Your task to perform on an android device: Clear all items from cart on costco. Add "rayovac triple a" to the cart on costco Image 0: 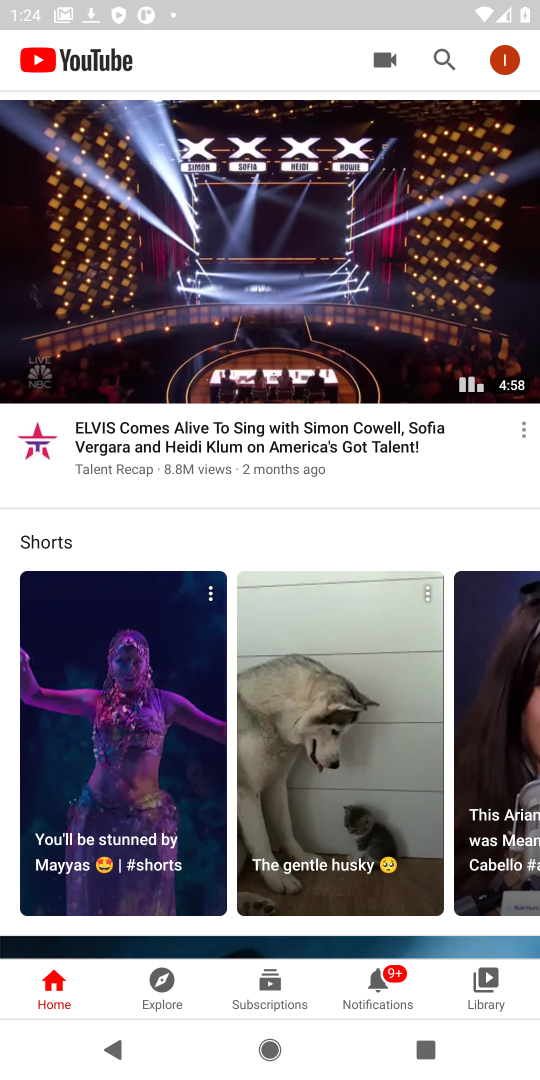
Step 0: press home button
Your task to perform on an android device: Clear all items from cart on costco. Add "rayovac triple a" to the cart on costco Image 1: 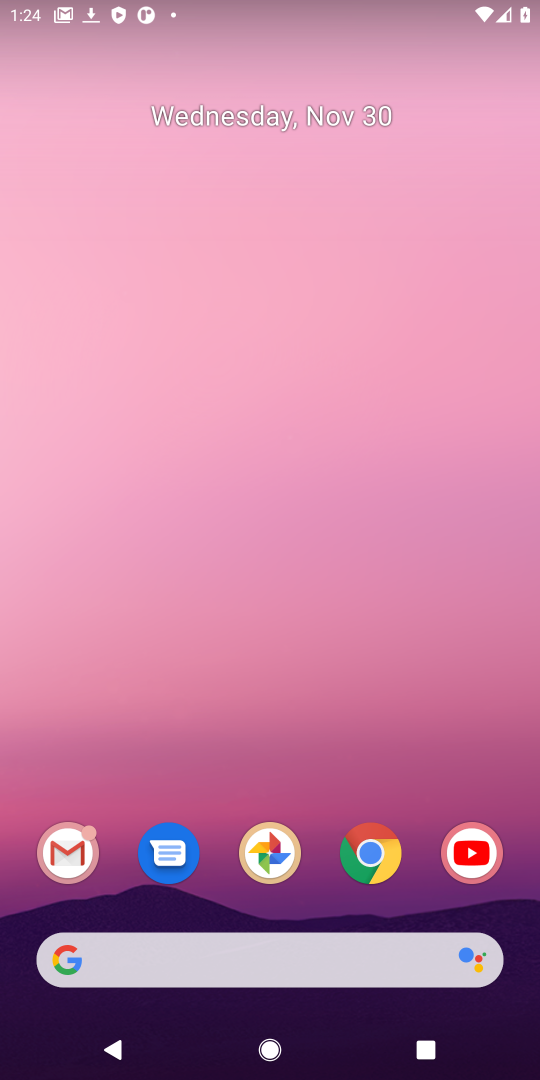
Step 1: click (383, 857)
Your task to perform on an android device: Clear all items from cart on costco. Add "rayovac triple a" to the cart on costco Image 2: 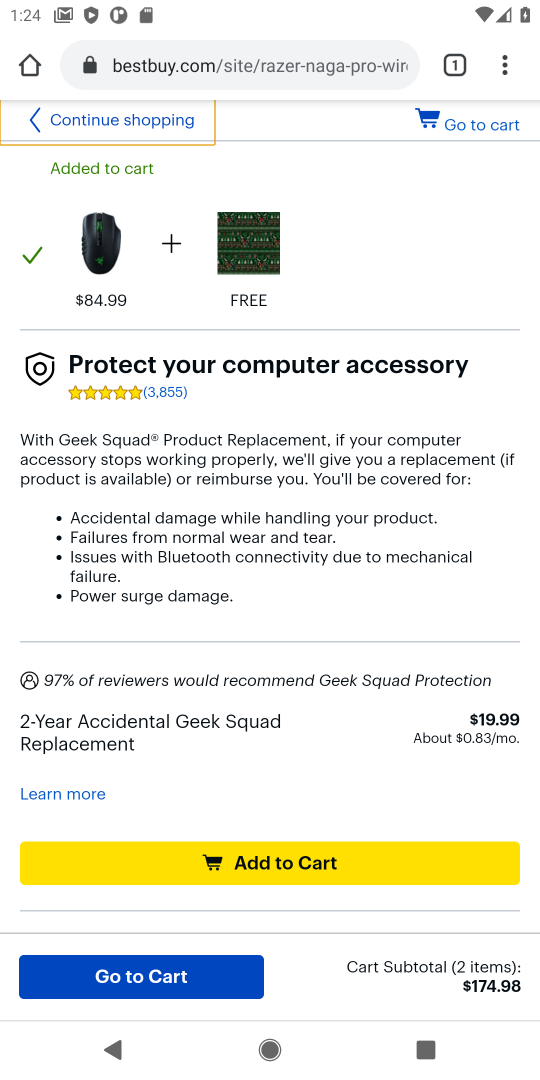
Step 2: click (202, 62)
Your task to perform on an android device: Clear all items from cart on costco. Add "rayovac triple a" to the cart on costco Image 3: 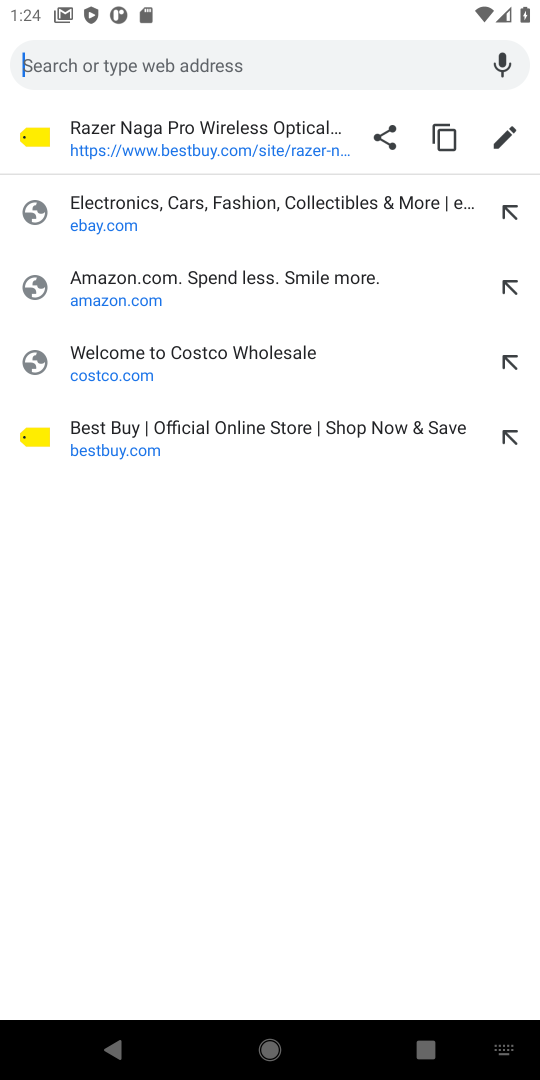
Step 3: click (104, 360)
Your task to perform on an android device: Clear all items from cart on costco. Add "rayovac triple a" to the cart on costco Image 4: 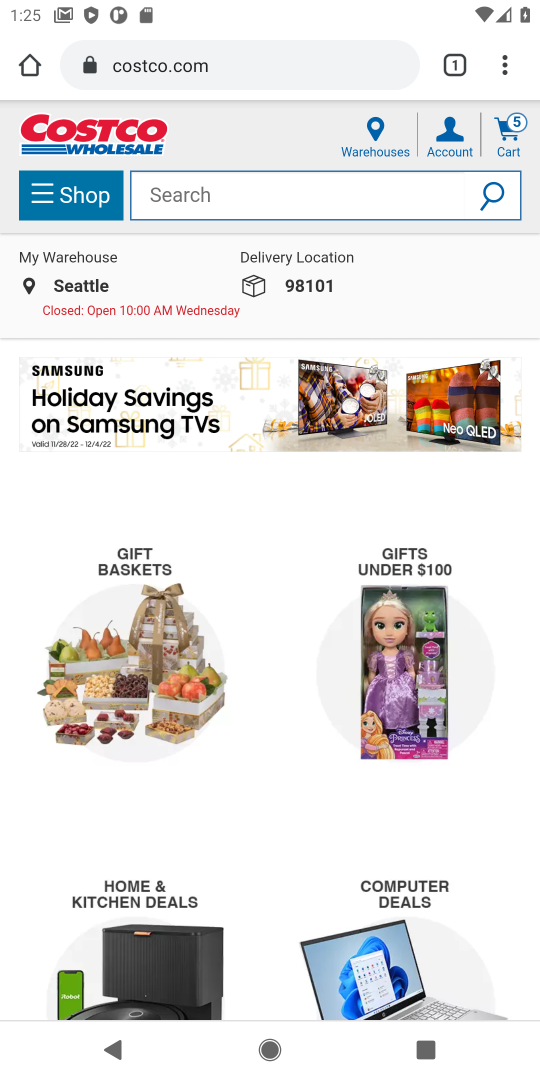
Step 4: click (511, 129)
Your task to perform on an android device: Clear all items from cart on costco. Add "rayovac triple a" to the cart on costco Image 5: 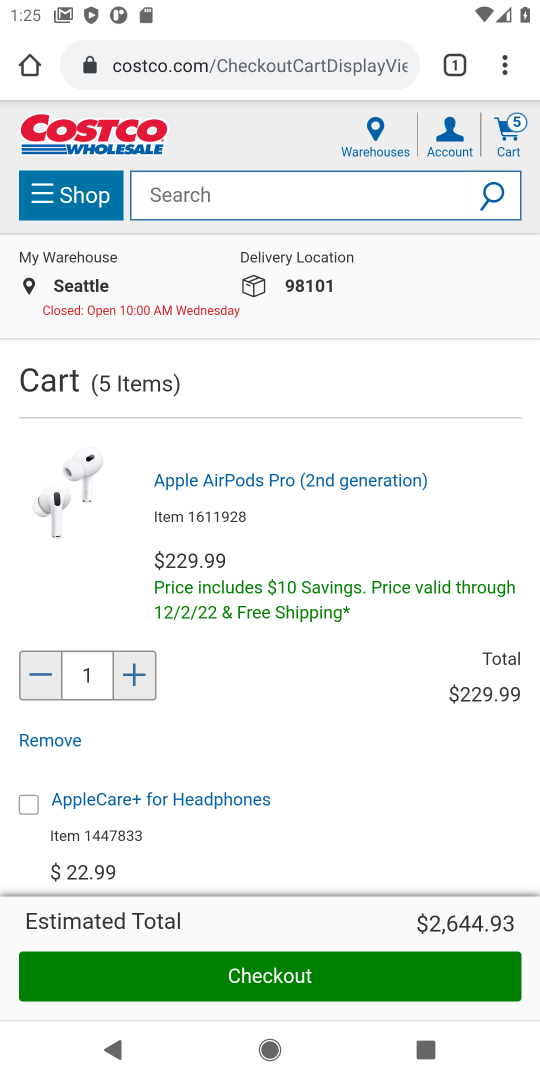
Step 5: drag from (299, 786) to (317, 391)
Your task to perform on an android device: Clear all items from cart on costco. Add "rayovac triple a" to the cart on costco Image 6: 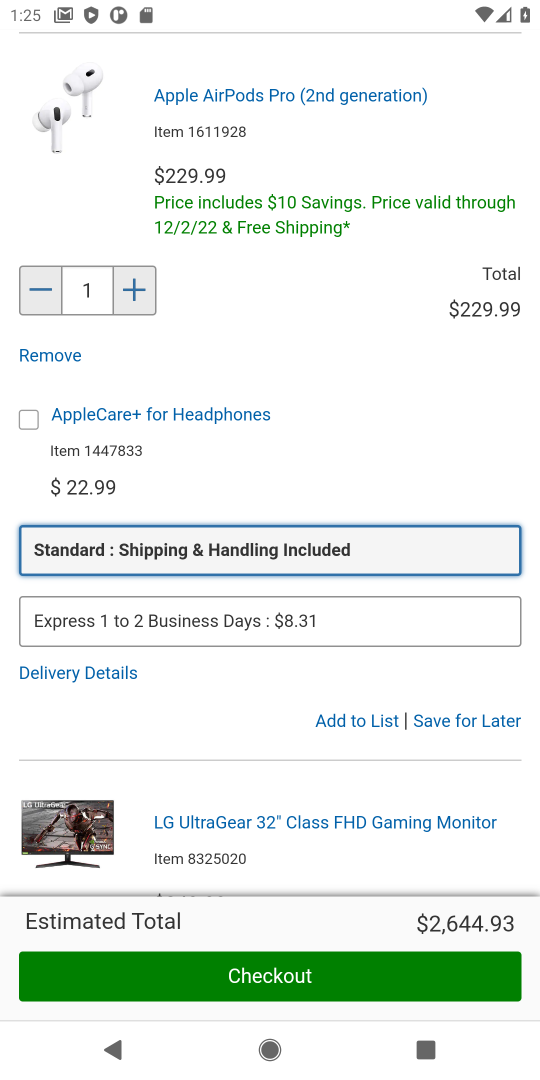
Step 6: click (461, 721)
Your task to perform on an android device: Clear all items from cart on costco. Add "rayovac triple a" to the cart on costco Image 7: 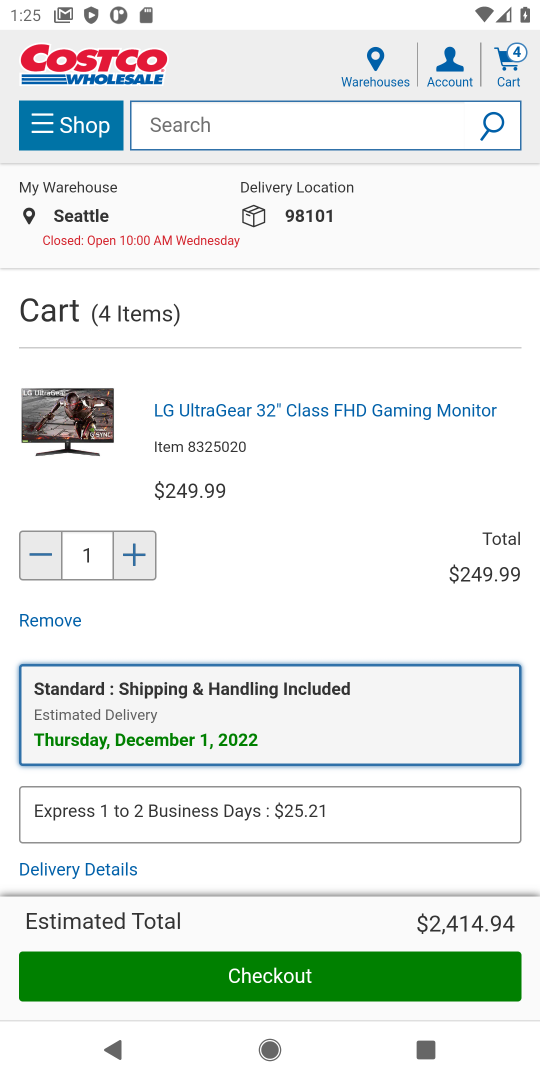
Step 7: drag from (372, 788) to (342, 423)
Your task to perform on an android device: Clear all items from cart on costco. Add "rayovac triple a" to the cart on costco Image 8: 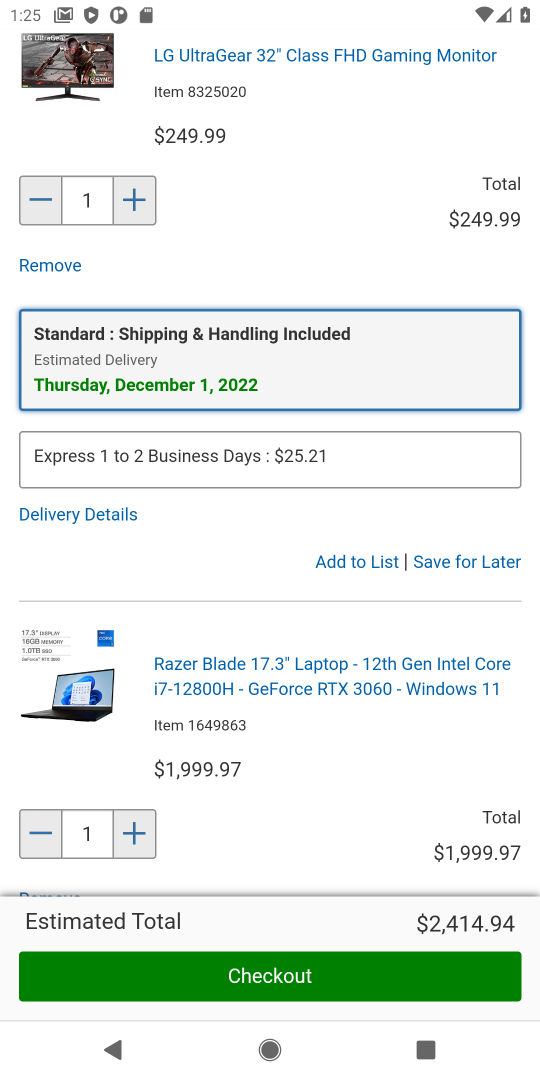
Step 8: click (447, 570)
Your task to perform on an android device: Clear all items from cart on costco. Add "rayovac triple a" to the cart on costco Image 9: 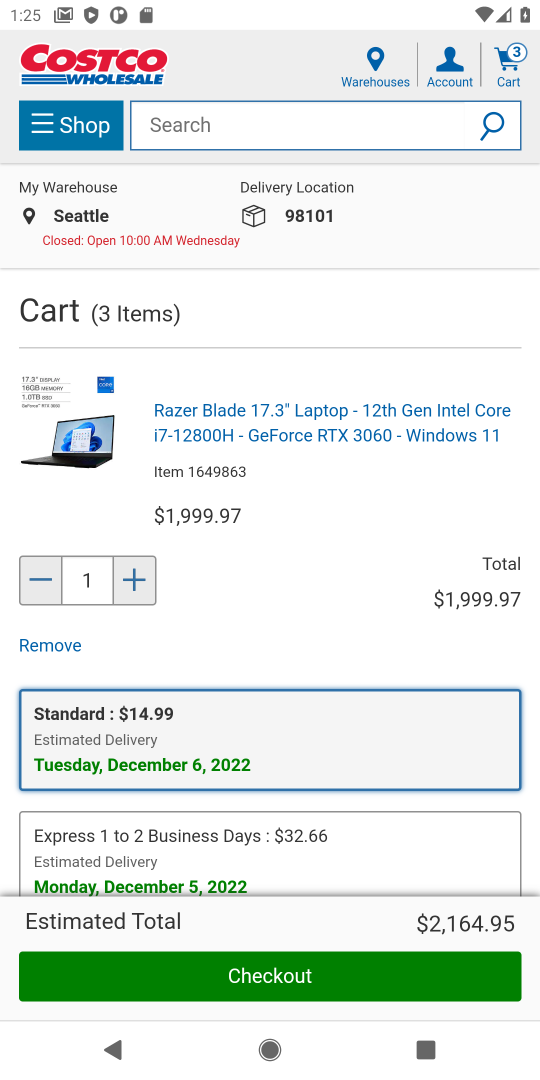
Step 9: drag from (246, 766) to (272, 416)
Your task to perform on an android device: Clear all items from cart on costco. Add "rayovac triple a" to the cart on costco Image 10: 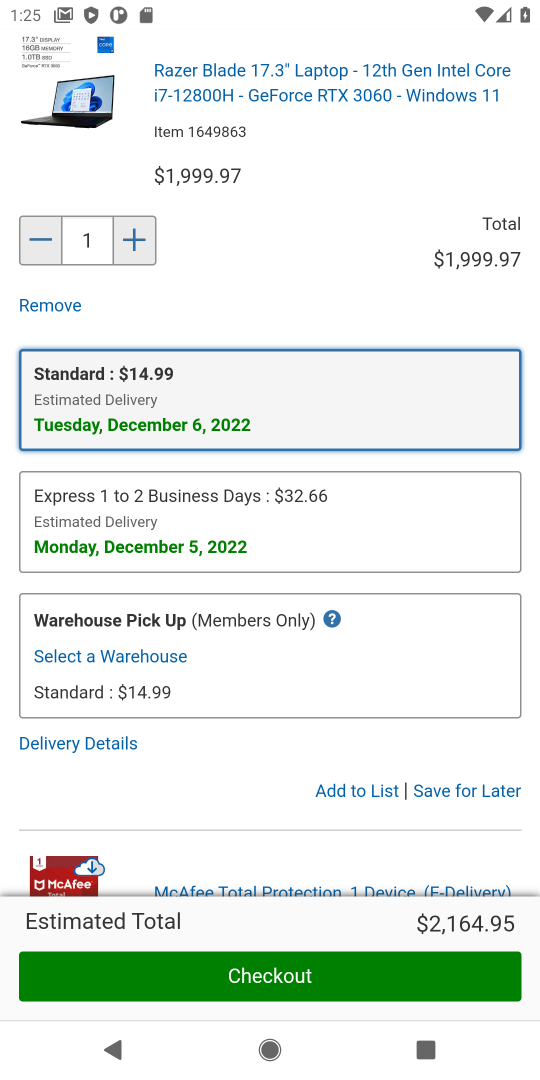
Step 10: click (450, 784)
Your task to perform on an android device: Clear all items from cart on costco. Add "rayovac triple a" to the cart on costco Image 11: 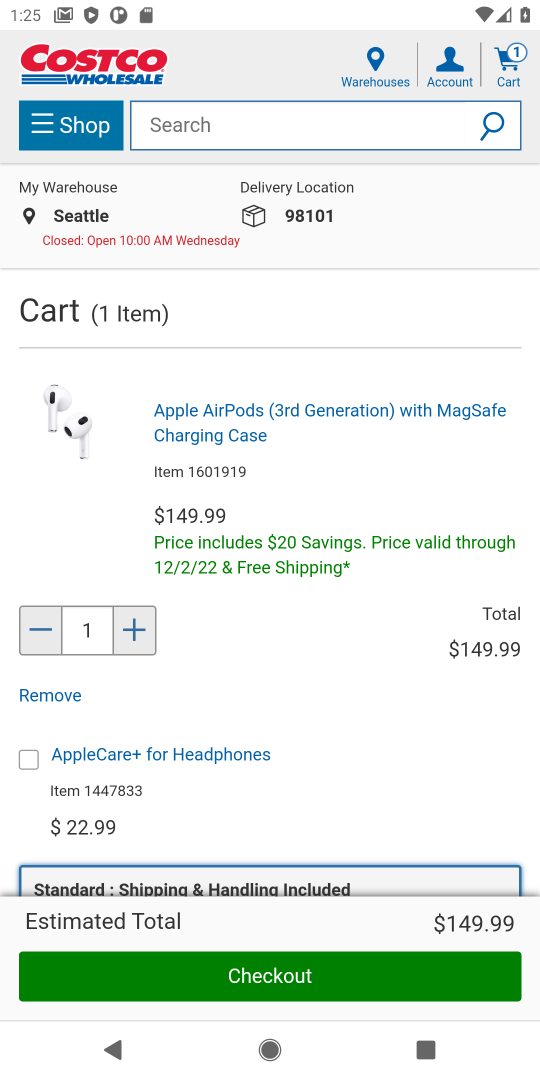
Step 11: drag from (340, 784) to (305, 397)
Your task to perform on an android device: Clear all items from cart on costco. Add "rayovac triple a" to the cart on costco Image 12: 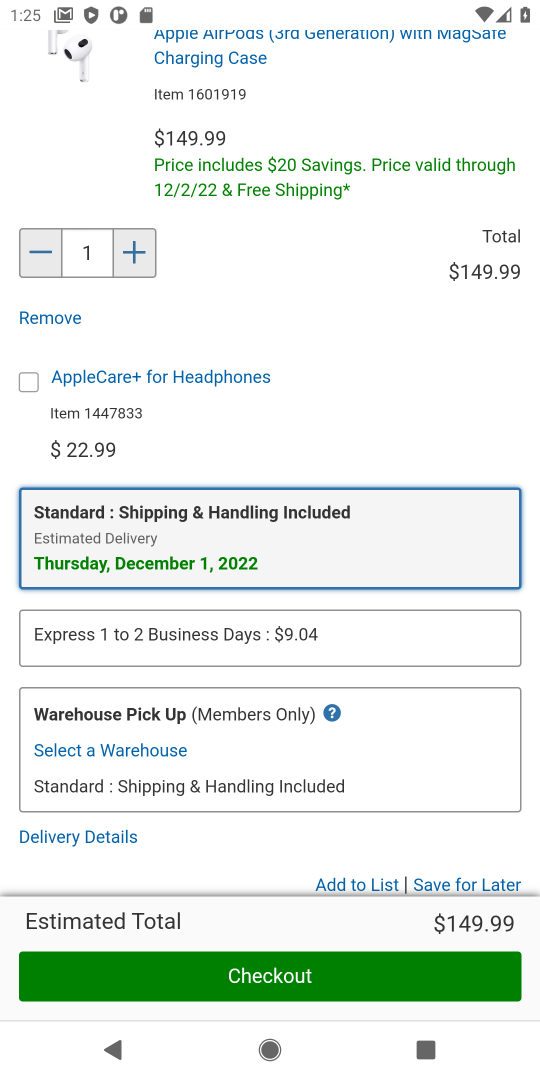
Step 12: drag from (418, 831) to (423, 591)
Your task to perform on an android device: Clear all items from cart on costco. Add "rayovac triple a" to the cart on costco Image 13: 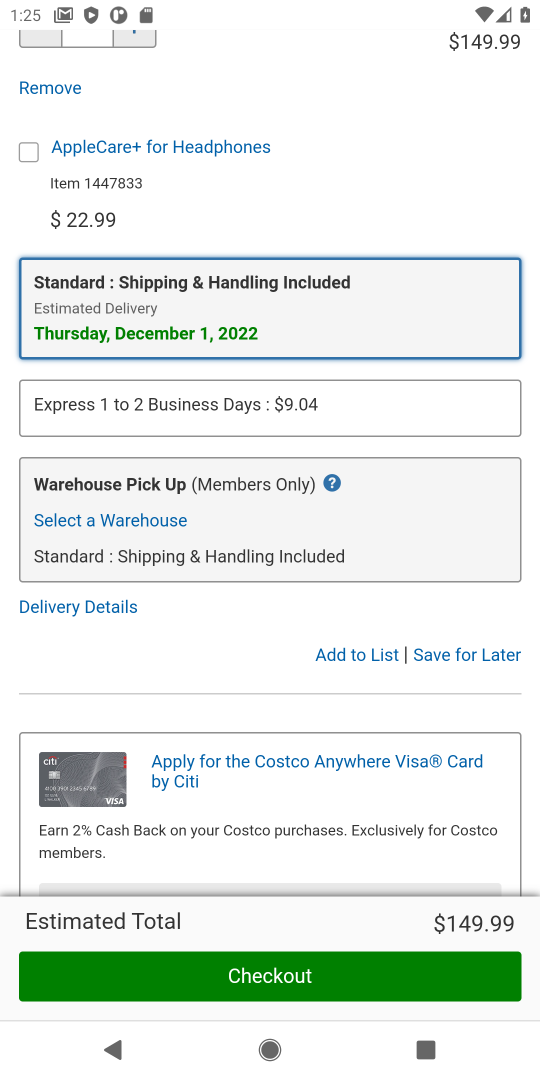
Step 13: click (456, 654)
Your task to perform on an android device: Clear all items from cart on costco. Add "rayovac triple a" to the cart on costco Image 14: 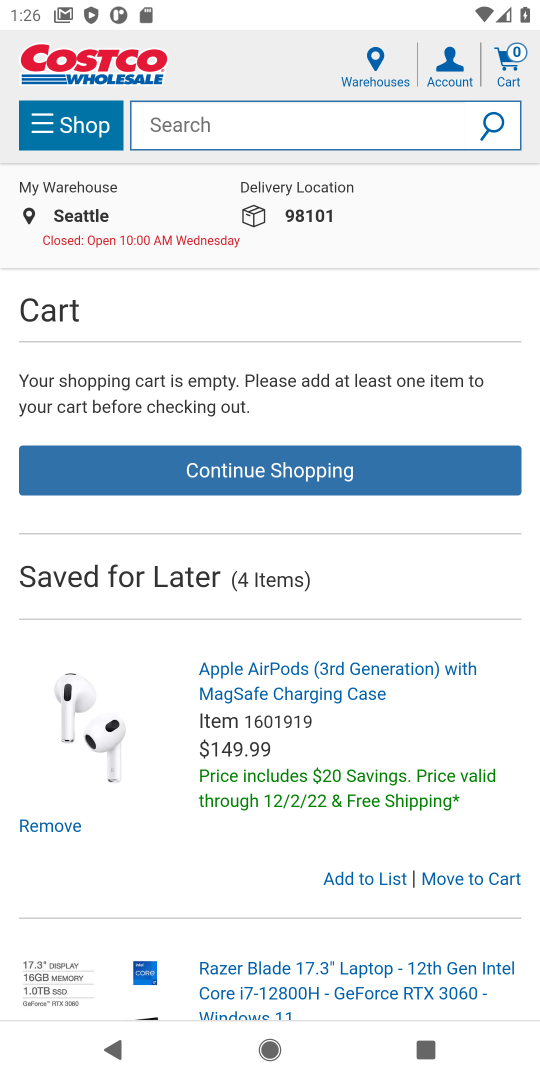
Step 14: click (188, 122)
Your task to perform on an android device: Clear all items from cart on costco. Add "rayovac triple a" to the cart on costco Image 15: 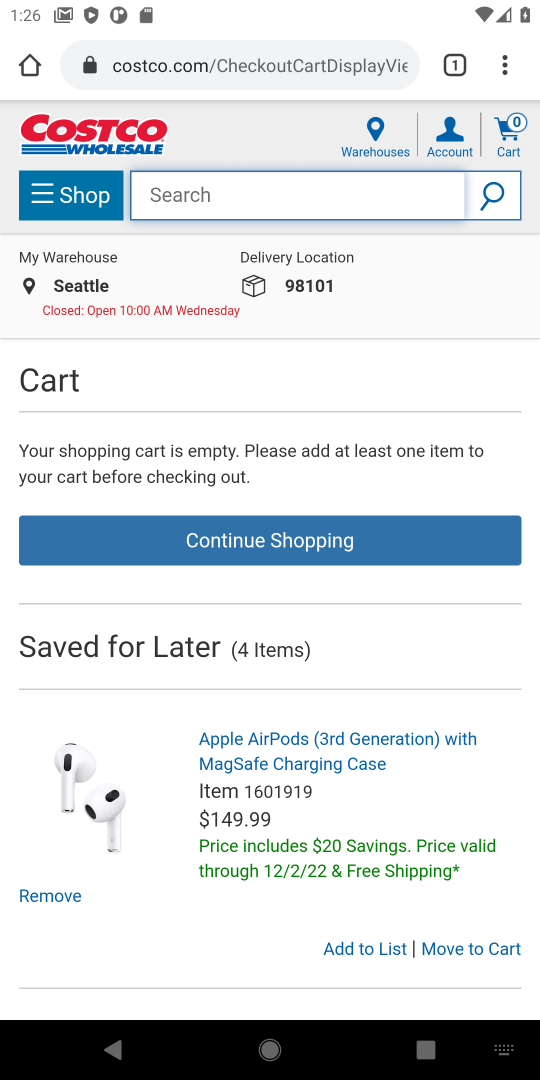
Step 15: type "rayovac triple a"
Your task to perform on an android device: Clear all items from cart on costco. Add "rayovac triple a" to the cart on costco Image 16: 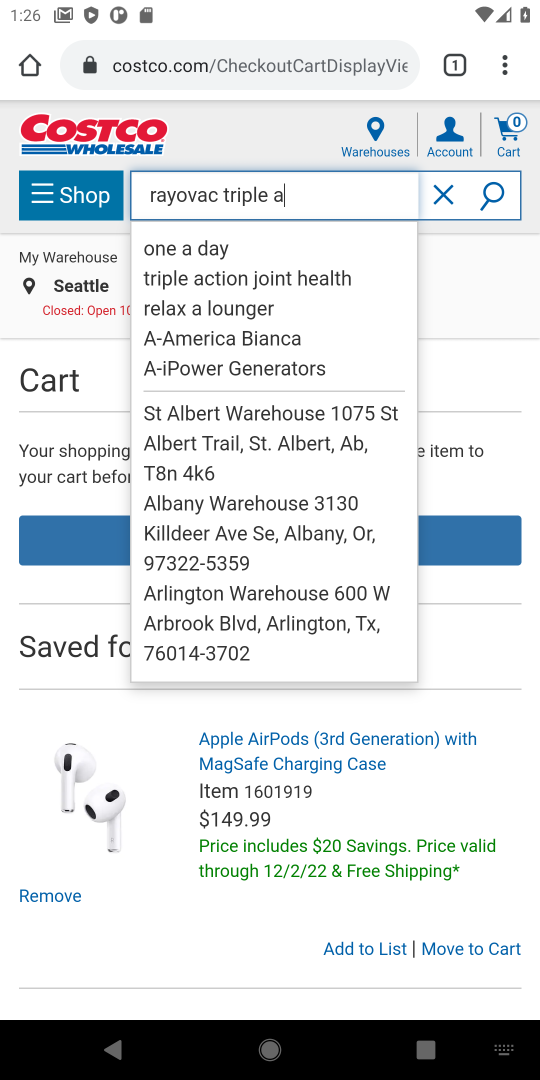
Step 16: click (497, 201)
Your task to perform on an android device: Clear all items from cart on costco. Add "rayovac triple a" to the cart on costco Image 17: 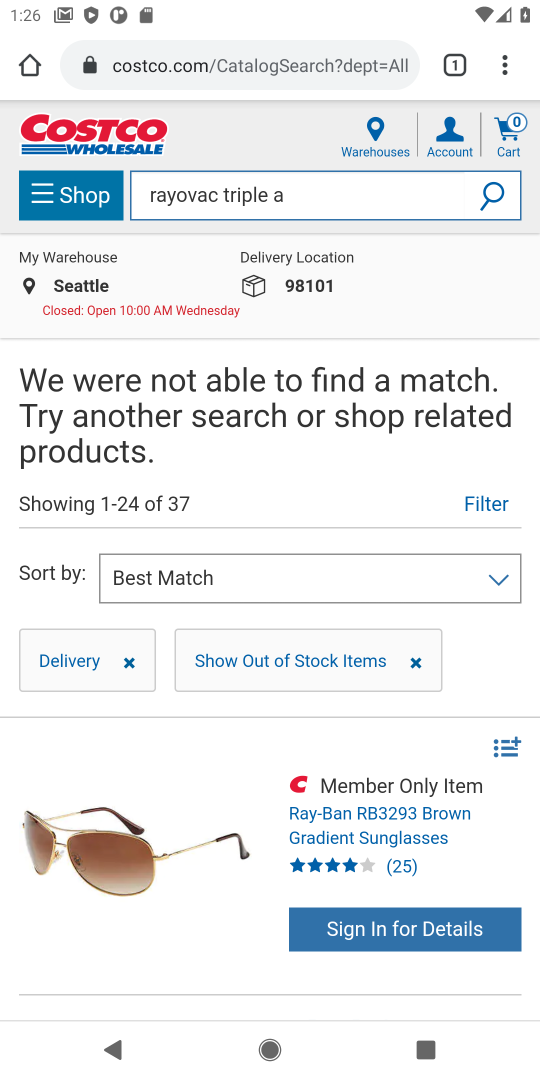
Step 17: task complete